Your task to perform on an android device: toggle sleep mode Image 0: 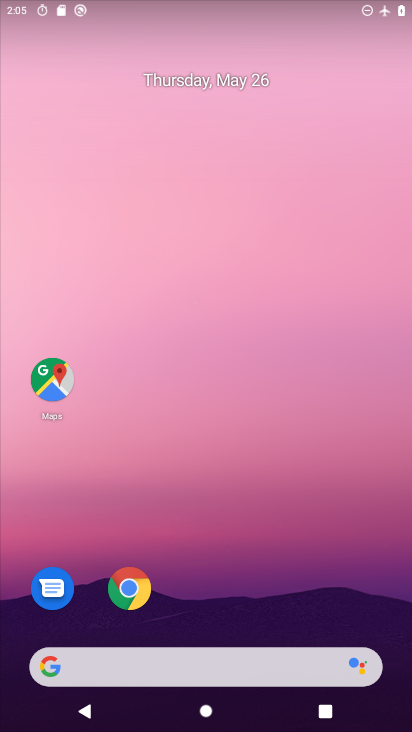
Step 0: drag from (398, 712) to (341, 209)
Your task to perform on an android device: toggle sleep mode Image 1: 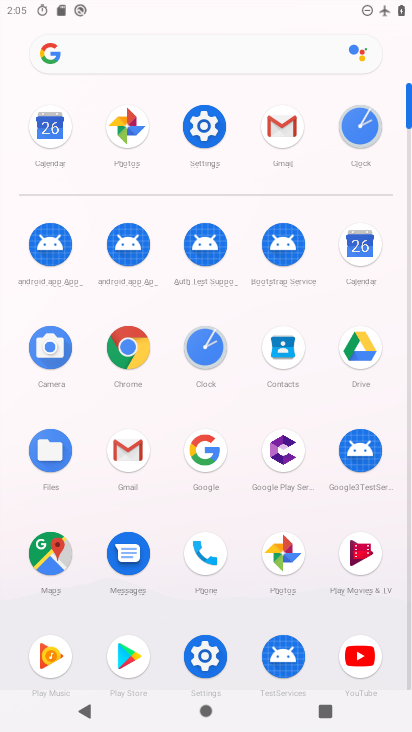
Step 1: click (210, 133)
Your task to perform on an android device: toggle sleep mode Image 2: 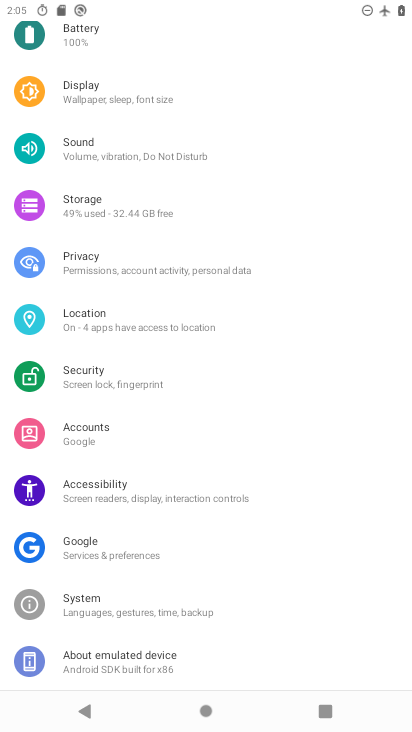
Step 2: drag from (312, 193) to (320, 542)
Your task to perform on an android device: toggle sleep mode Image 3: 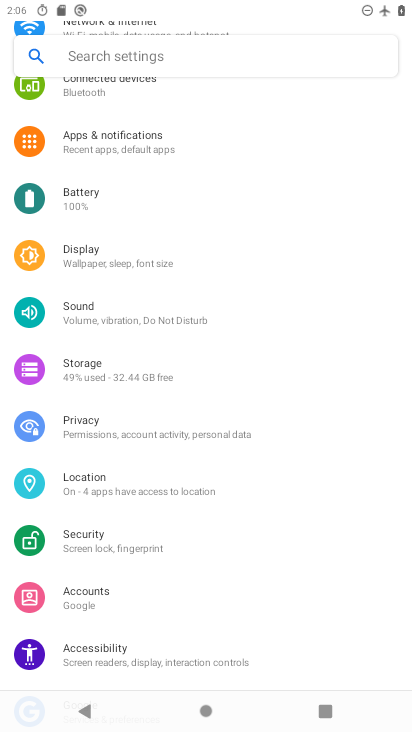
Step 3: drag from (290, 158) to (324, 640)
Your task to perform on an android device: toggle sleep mode Image 4: 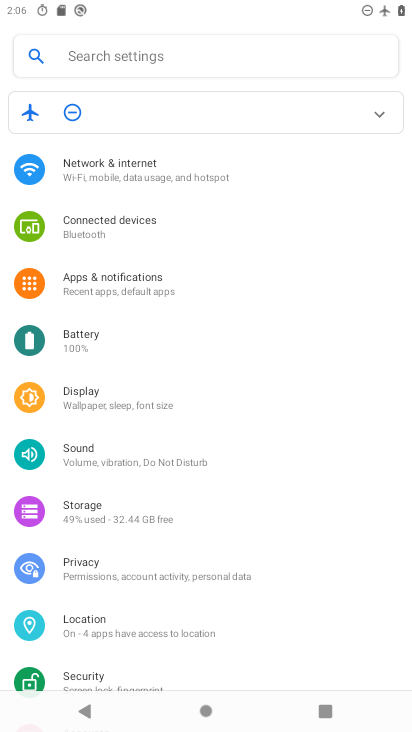
Step 4: click (106, 165)
Your task to perform on an android device: toggle sleep mode Image 5: 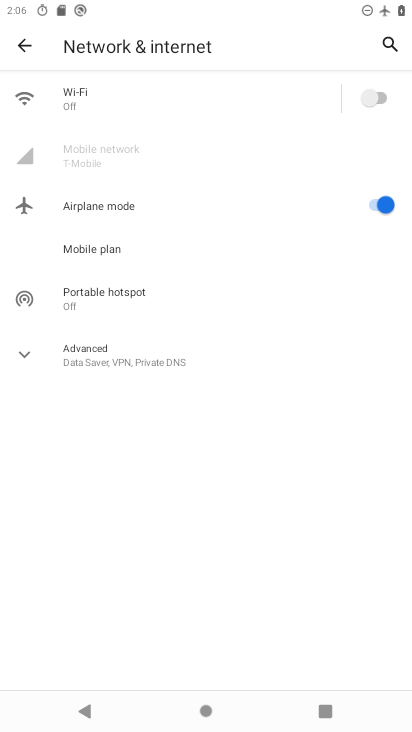
Step 5: click (375, 209)
Your task to perform on an android device: toggle sleep mode Image 6: 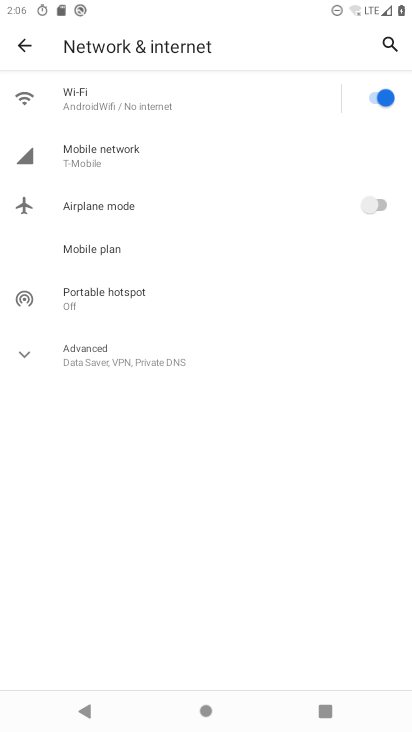
Step 6: click (21, 51)
Your task to perform on an android device: toggle sleep mode Image 7: 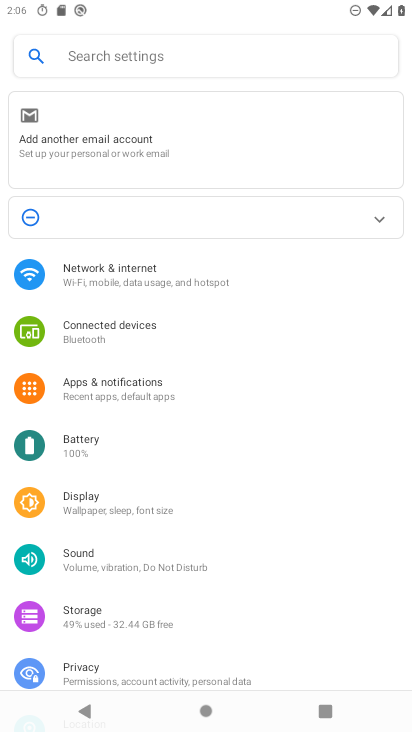
Step 7: click (93, 506)
Your task to perform on an android device: toggle sleep mode Image 8: 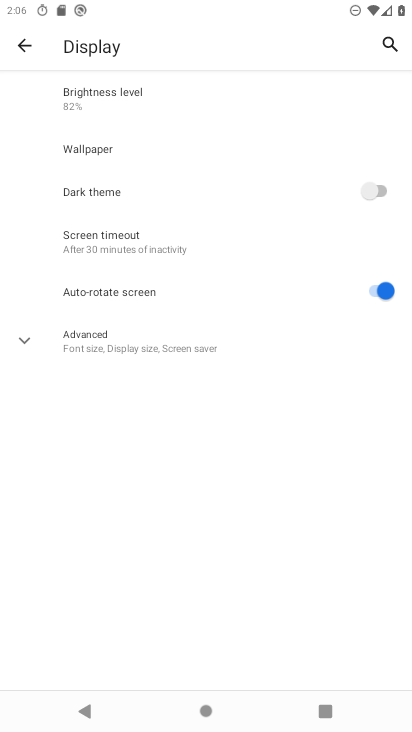
Step 8: click (135, 247)
Your task to perform on an android device: toggle sleep mode Image 9: 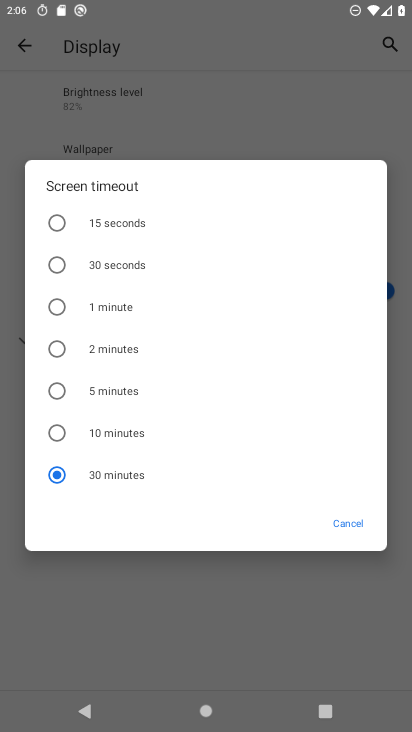
Step 9: click (53, 390)
Your task to perform on an android device: toggle sleep mode Image 10: 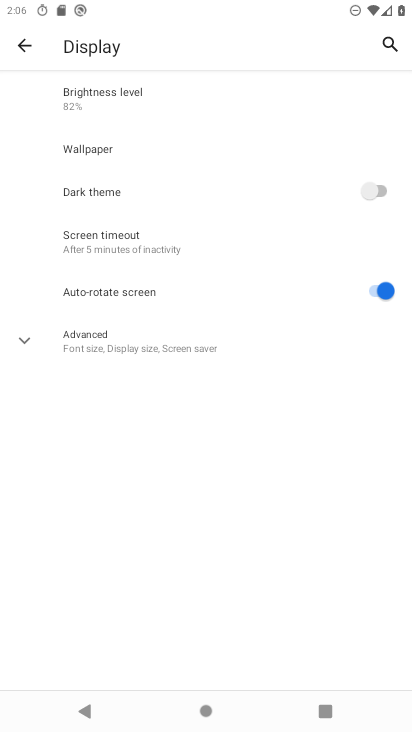
Step 10: task complete